Your task to perform on an android device: Go to display settings Image 0: 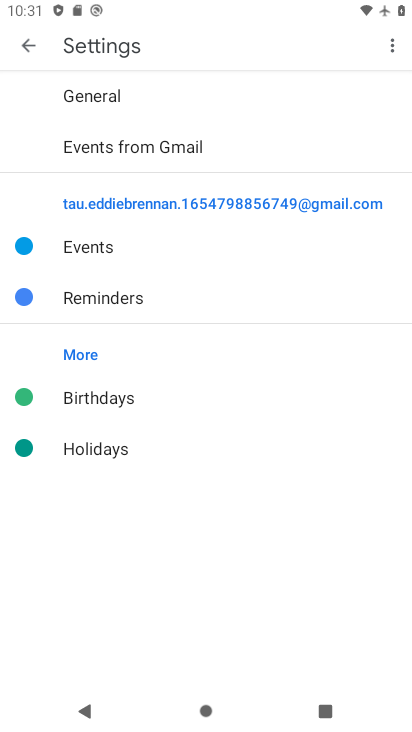
Step 0: press home button
Your task to perform on an android device: Go to display settings Image 1: 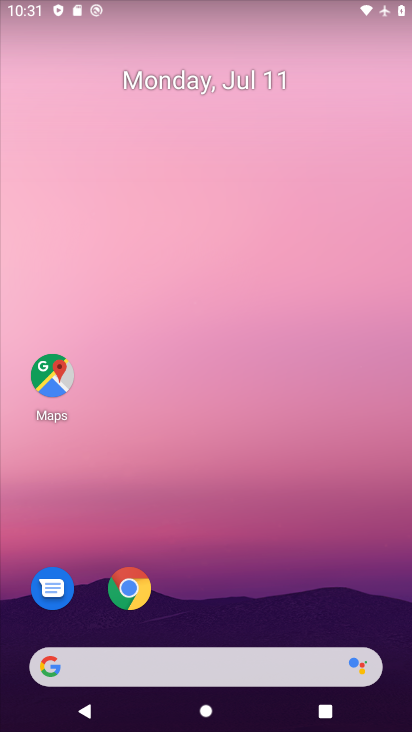
Step 1: drag from (125, 670) to (324, 56)
Your task to perform on an android device: Go to display settings Image 2: 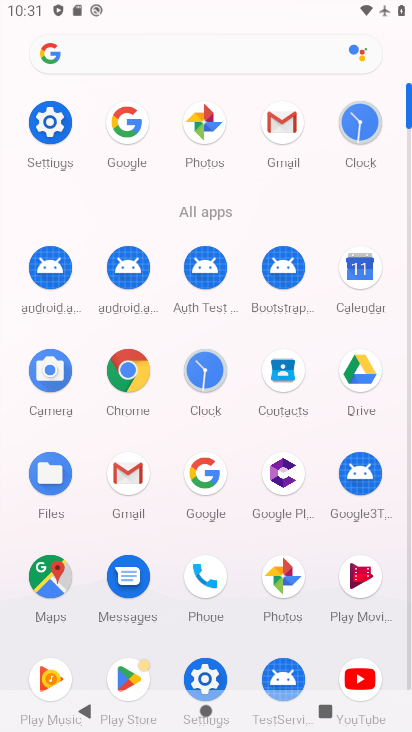
Step 2: click (56, 130)
Your task to perform on an android device: Go to display settings Image 3: 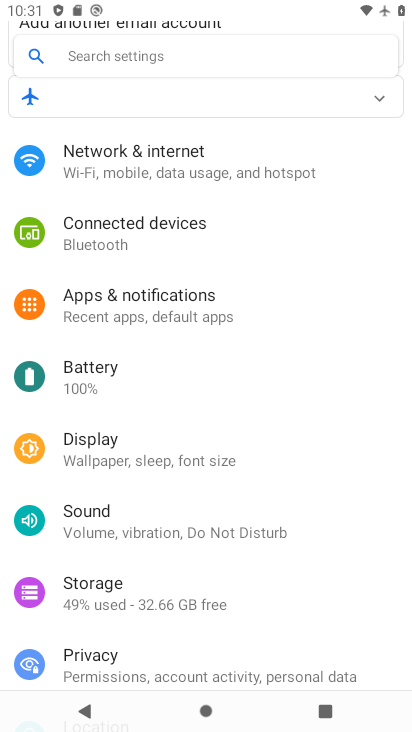
Step 3: click (116, 448)
Your task to perform on an android device: Go to display settings Image 4: 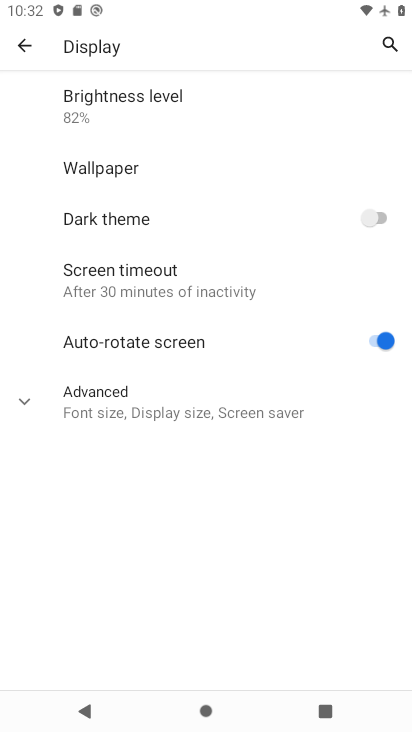
Step 4: task complete